Your task to perform on an android device: open wifi settings Image 0: 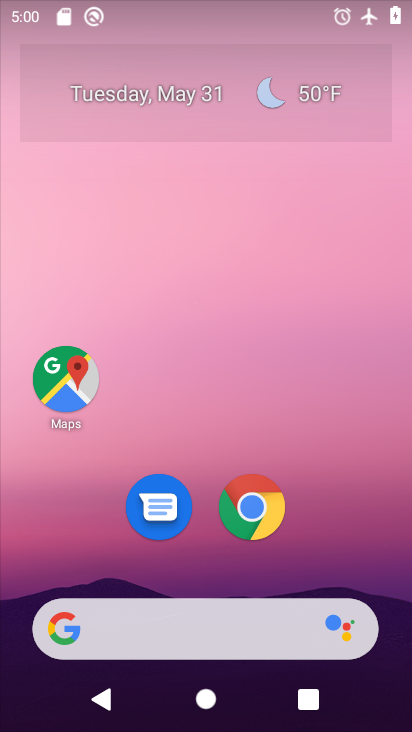
Step 0: drag from (197, 423) to (198, 67)
Your task to perform on an android device: open wifi settings Image 1: 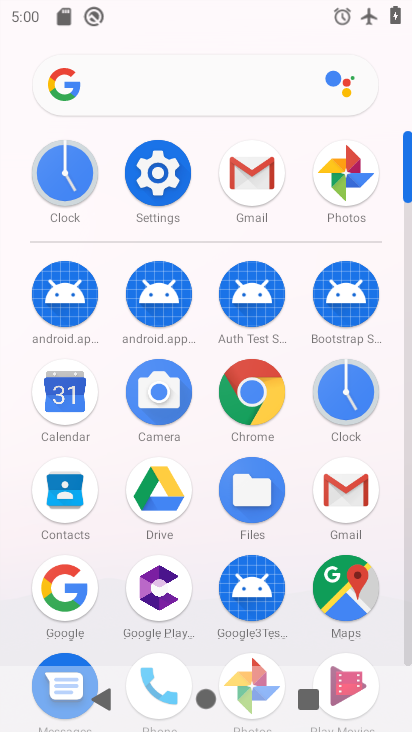
Step 1: click (172, 159)
Your task to perform on an android device: open wifi settings Image 2: 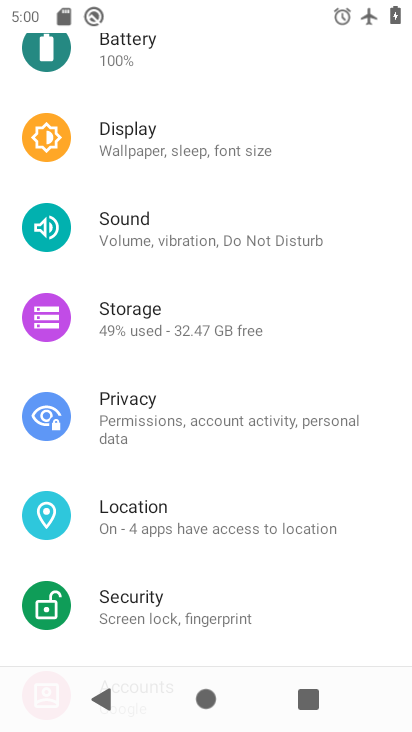
Step 2: drag from (228, 117) to (327, 546)
Your task to perform on an android device: open wifi settings Image 3: 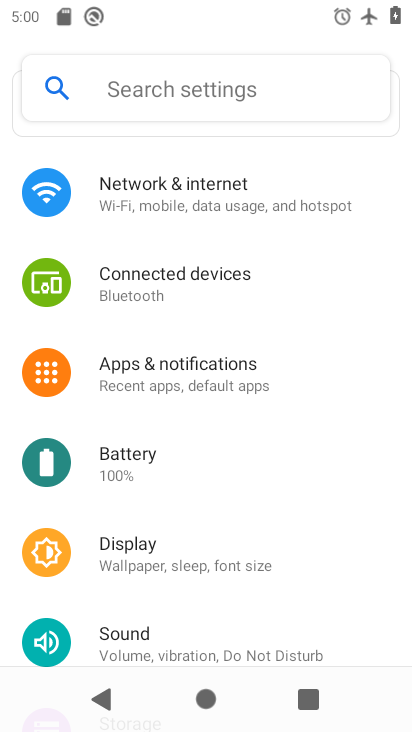
Step 3: click (231, 181)
Your task to perform on an android device: open wifi settings Image 4: 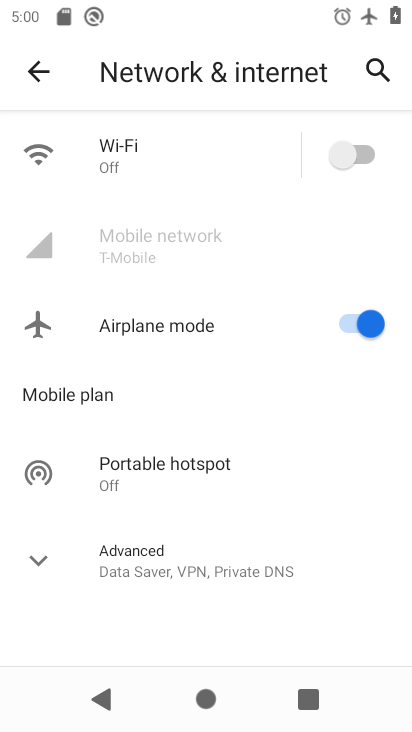
Step 4: click (356, 312)
Your task to perform on an android device: open wifi settings Image 5: 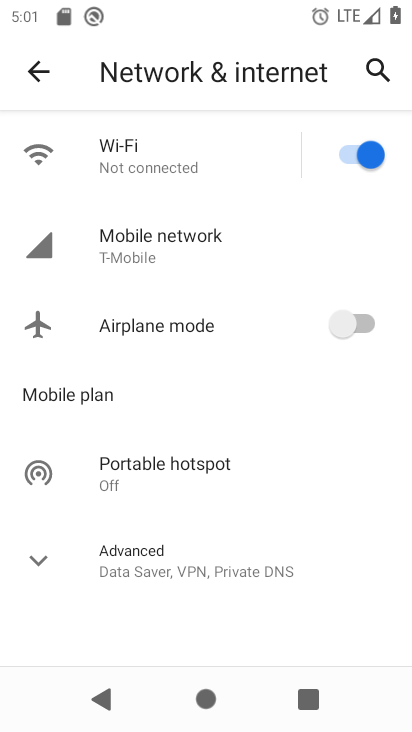
Step 5: task complete